Your task to perform on an android device: open chrome privacy settings Image 0: 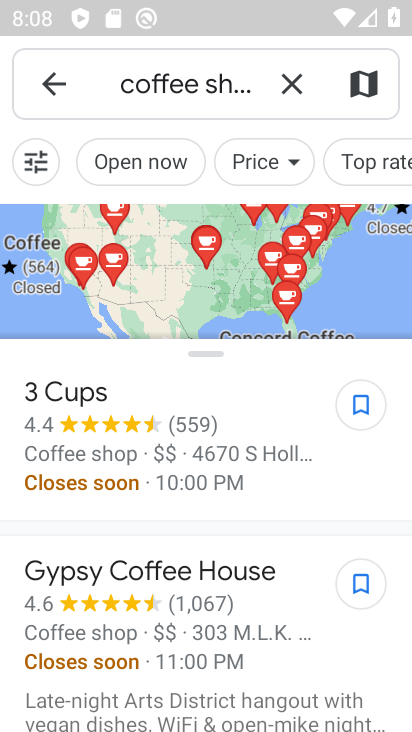
Step 0: press back button
Your task to perform on an android device: open chrome privacy settings Image 1: 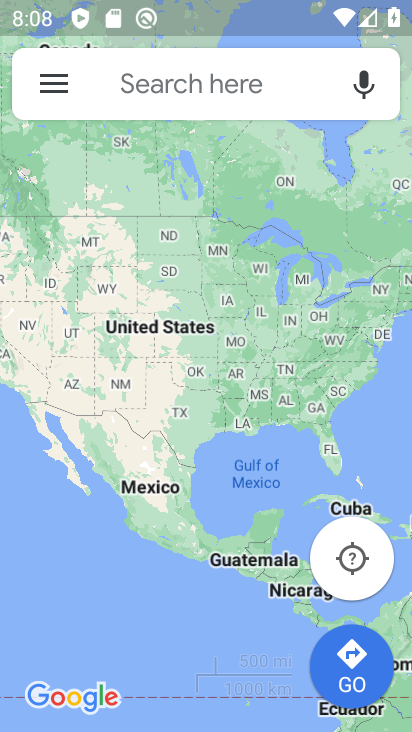
Step 1: press back button
Your task to perform on an android device: open chrome privacy settings Image 2: 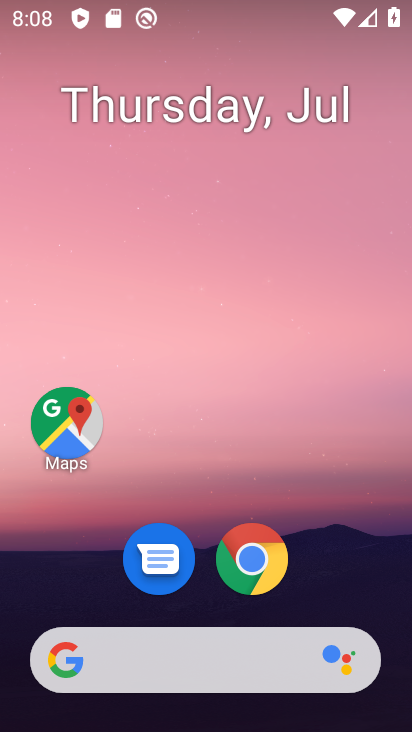
Step 2: click (253, 553)
Your task to perform on an android device: open chrome privacy settings Image 3: 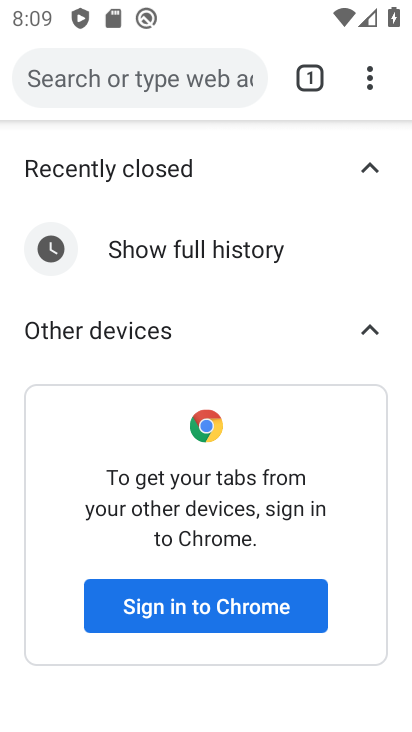
Step 3: drag from (366, 67) to (108, 612)
Your task to perform on an android device: open chrome privacy settings Image 4: 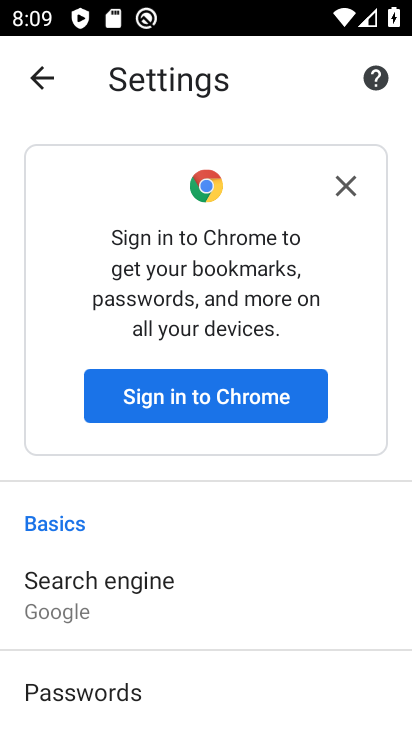
Step 4: drag from (137, 631) to (221, 282)
Your task to perform on an android device: open chrome privacy settings Image 5: 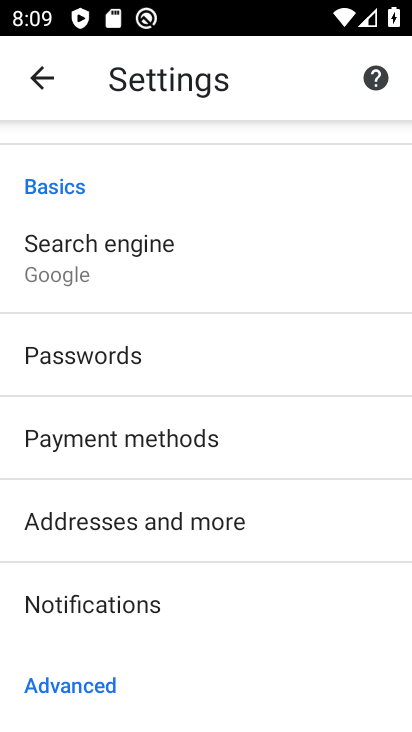
Step 5: drag from (108, 674) to (188, 252)
Your task to perform on an android device: open chrome privacy settings Image 6: 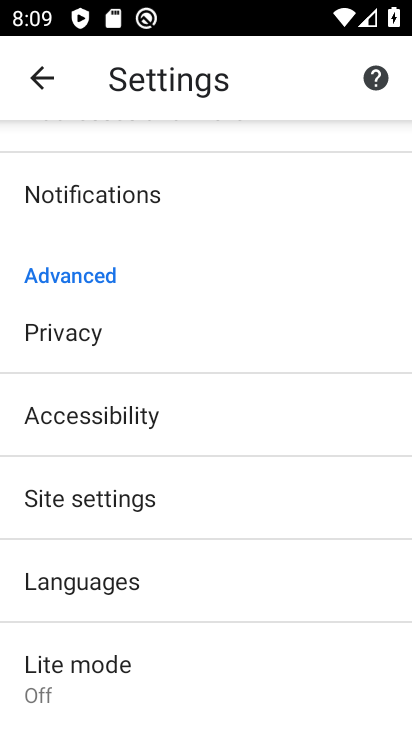
Step 6: click (71, 328)
Your task to perform on an android device: open chrome privacy settings Image 7: 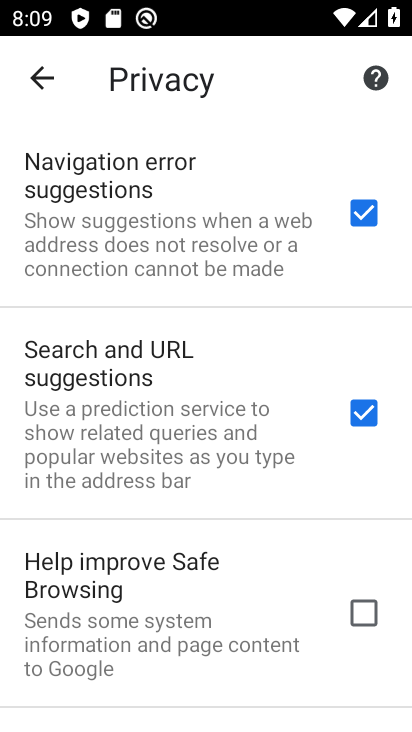
Step 7: task complete